Your task to perform on an android device: open a bookmark in the chrome app Image 0: 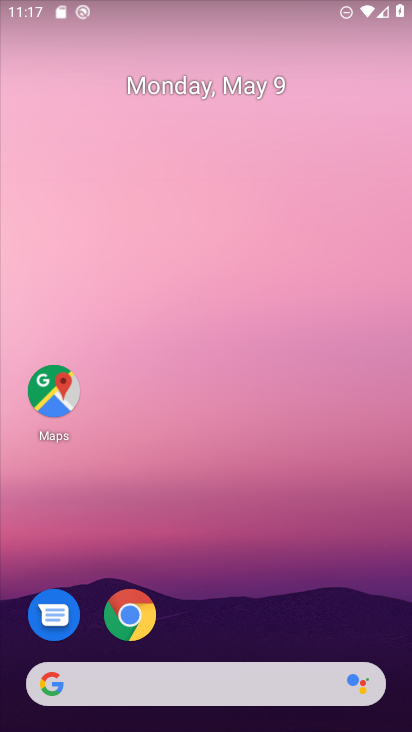
Step 0: drag from (293, 704) to (276, 253)
Your task to perform on an android device: open a bookmark in the chrome app Image 1: 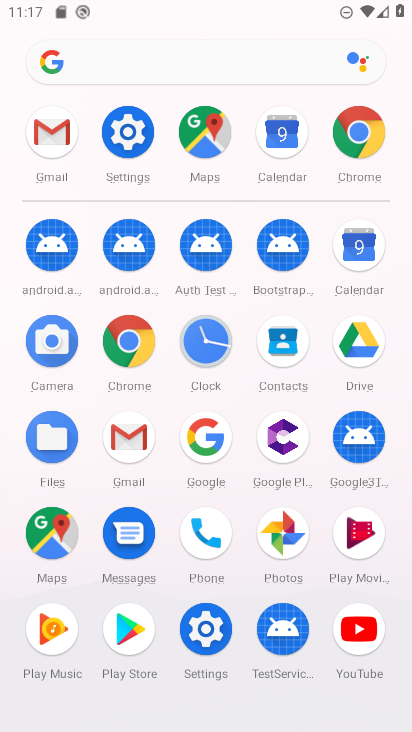
Step 1: click (119, 334)
Your task to perform on an android device: open a bookmark in the chrome app Image 2: 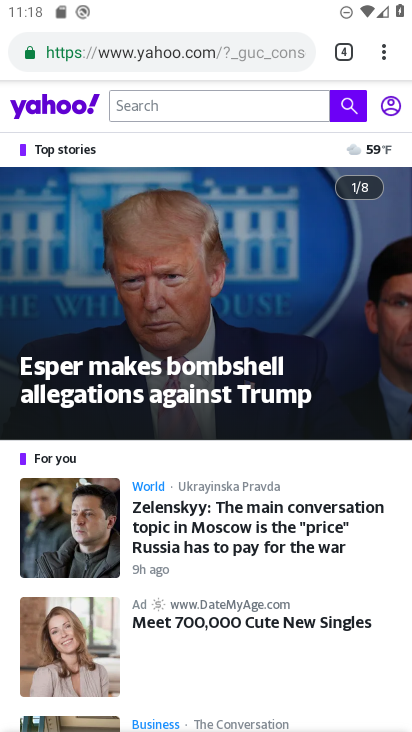
Step 2: click (384, 62)
Your task to perform on an android device: open a bookmark in the chrome app Image 3: 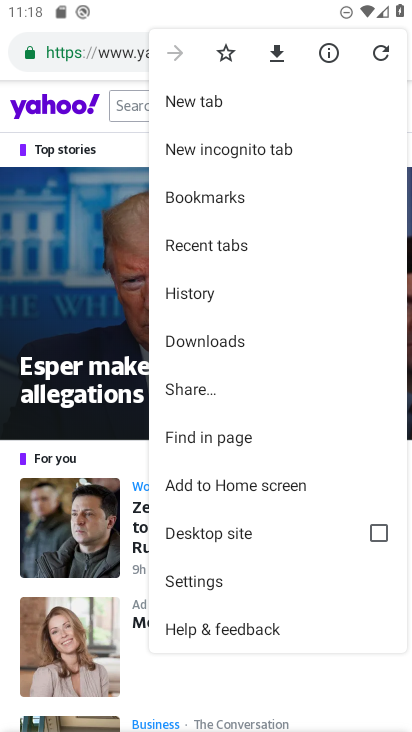
Step 3: click (224, 206)
Your task to perform on an android device: open a bookmark in the chrome app Image 4: 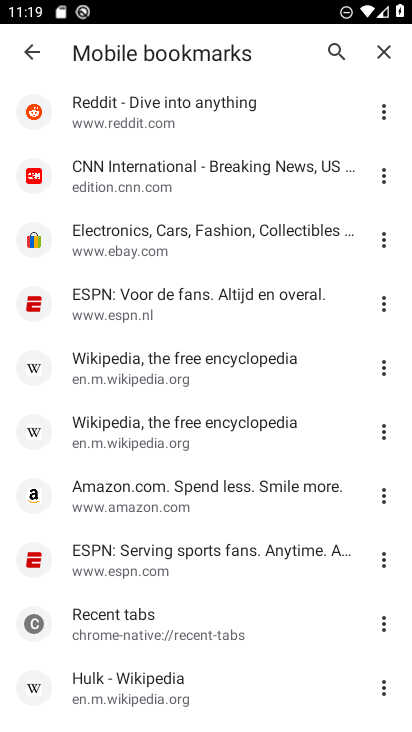
Step 4: click (178, 239)
Your task to perform on an android device: open a bookmark in the chrome app Image 5: 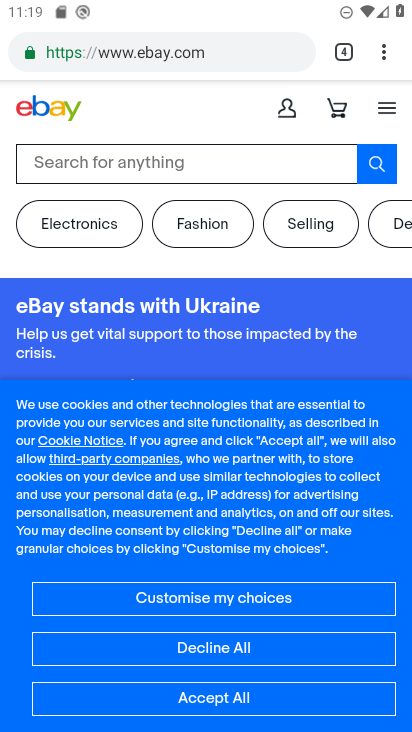
Step 5: task complete